Your task to perform on an android device: make emails show in primary in the gmail app Image 0: 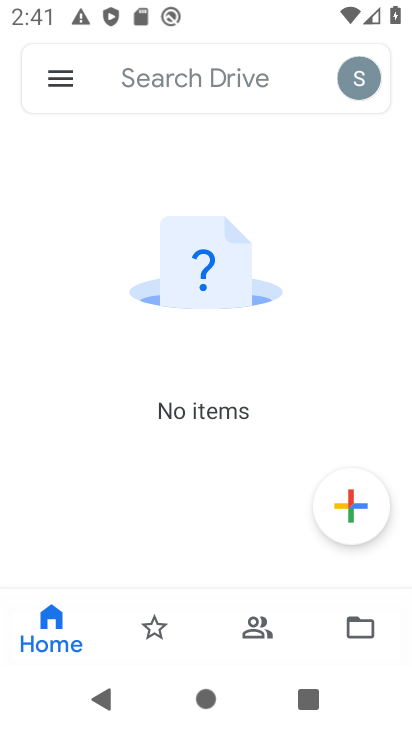
Step 0: press home button
Your task to perform on an android device: make emails show in primary in the gmail app Image 1: 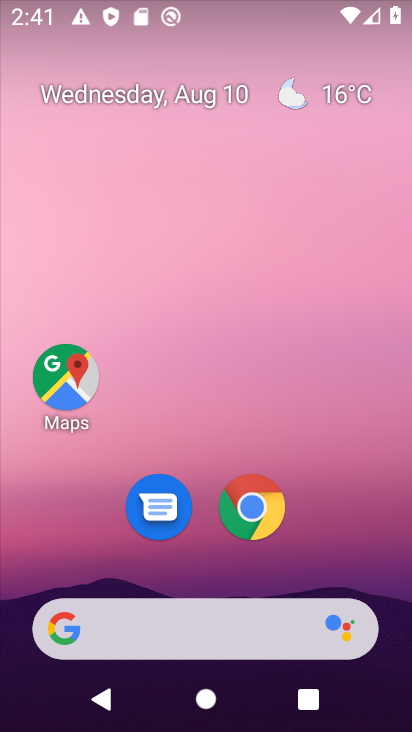
Step 1: drag from (339, 526) to (287, 70)
Your task to perform on an android device: make emails show in primary in the gmail app Image 2: 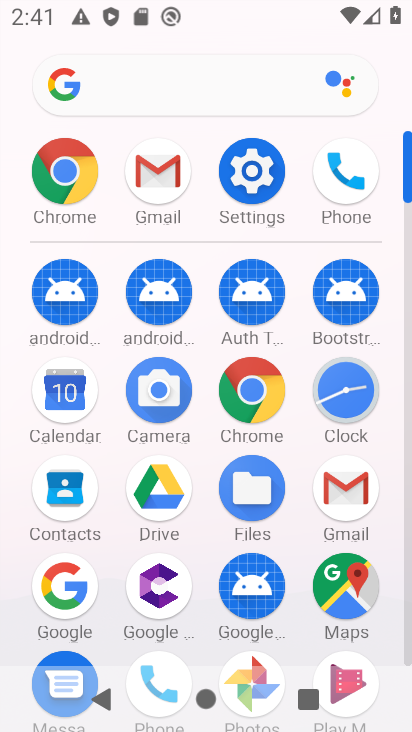
Step 2: click (155, 178)
Your task to perform on an android device: make emails show in primary in the gmail app Image 3: 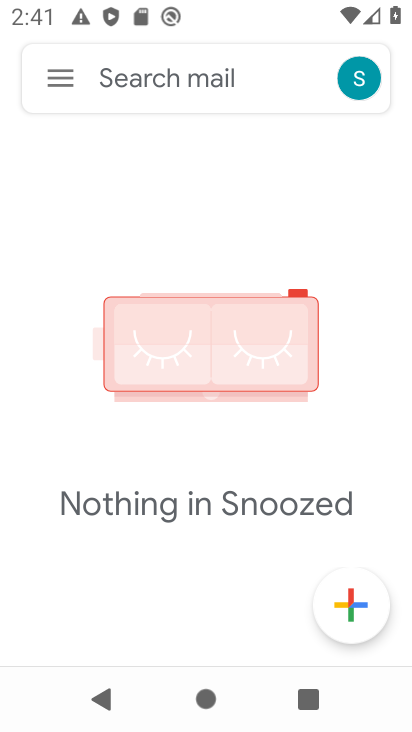
Step 3: click (62, 80)
Your task to perform on an android device: make emails show in primary in the gmail app Image 4: 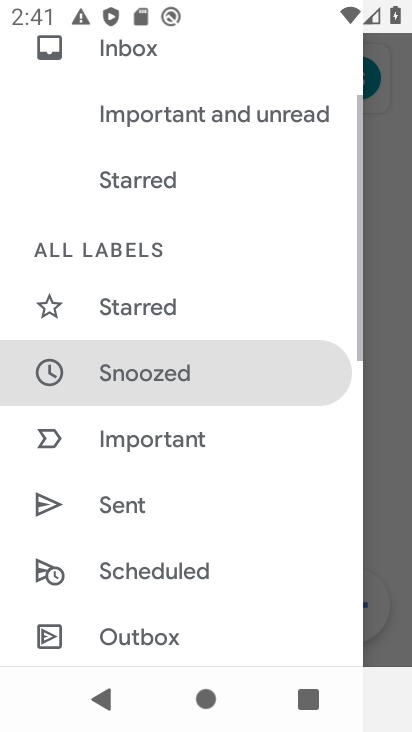
Step 4: drag from (167, 152) to (173, 679)
Your task to perform on an android device: make emails show in primary in the gmail app Image 5: 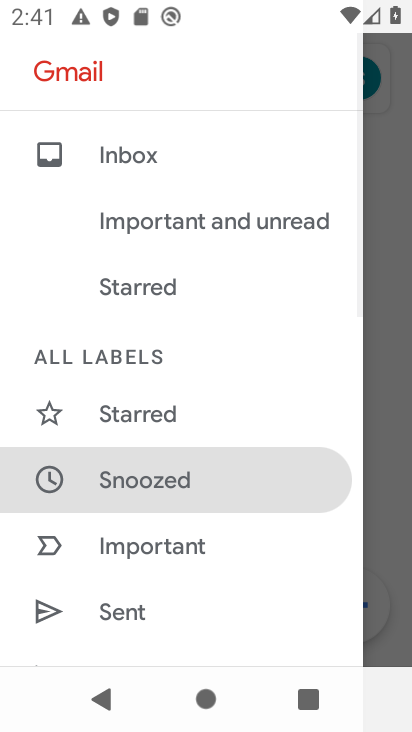
Step 5: drag from (163, 544) to (211, 117)
Your task to perform on an android device: make emails show in primary in the gmail app Image 6: 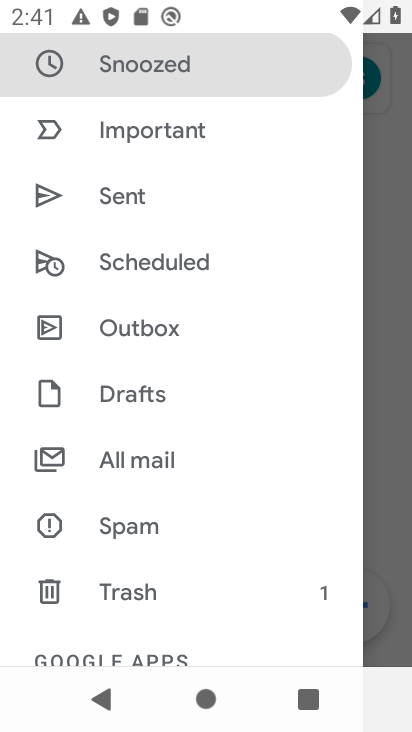
Step 6: drag from (133, 515) to (196, 128)
Your task to perform on an android device: make emails show in primary in the gmail app Image 7: 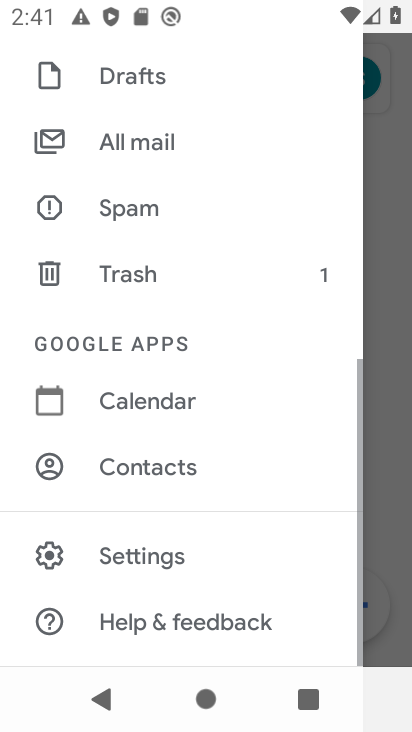
Step 7: click (117, 562)
Your task to perform on an android device: make emails show in primary in the gmail app Image 8: 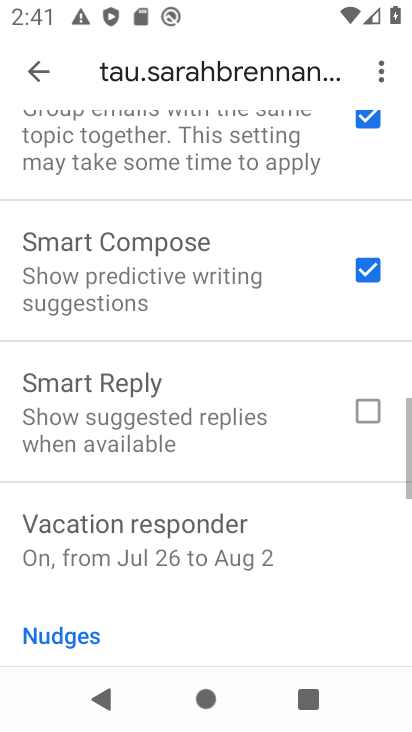
Step 8: drag from (211, 168) to (214, 646)
Your task to perform on an android device: make emails show in primary in the gmail app Image 9: 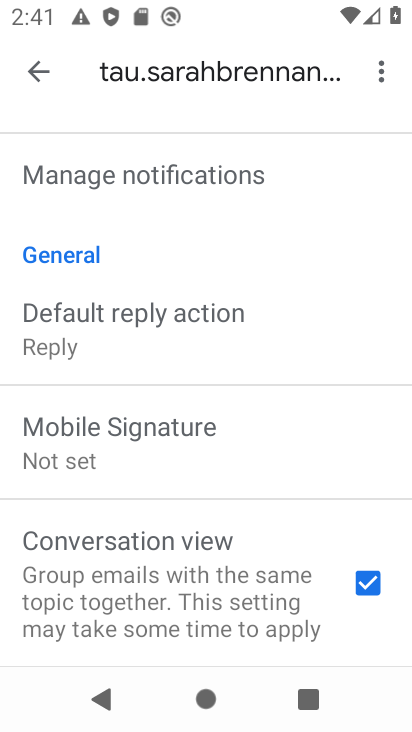
Step 9: drag from (170, 195) to (177, 516)
Your task to perform on an android device: make emails show in primary in the gmail app Image 10: 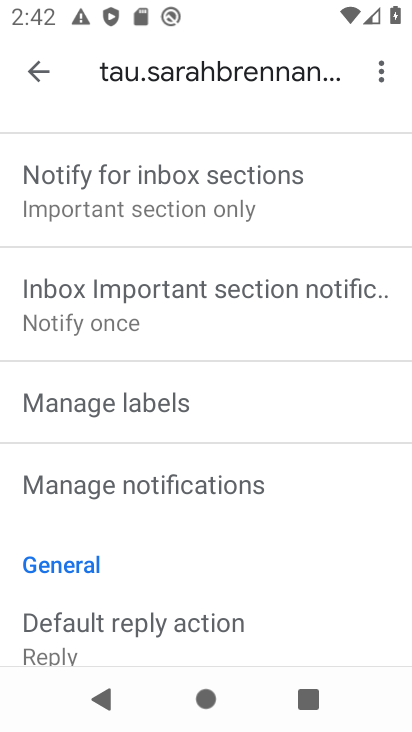
Step 10: drag from (168, 190) to (191, 553)
Your task to perform on an android device: make emails show in primary in the gmail app Image 11: 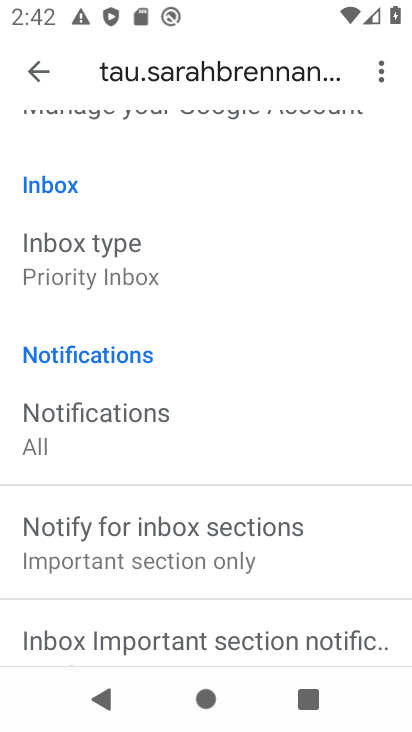
Step 11: click (112, 262)
Your task to perform on an android device: make emails show in primary in the gmail app Image 12: 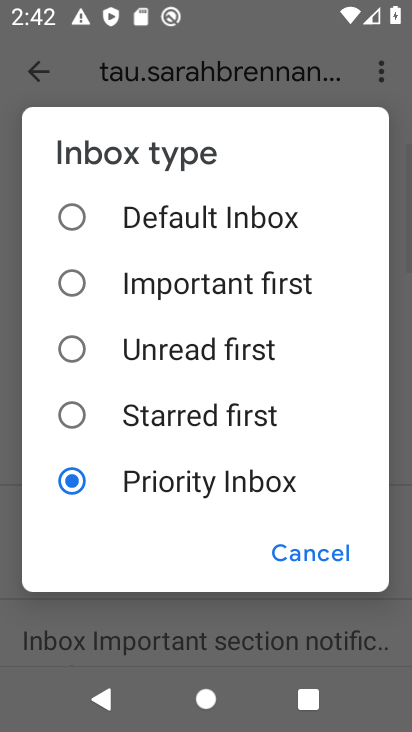
Step 12: click (136, 212)
Your task to perform on an android device: make emails show in primary in the gmail app Image 13: 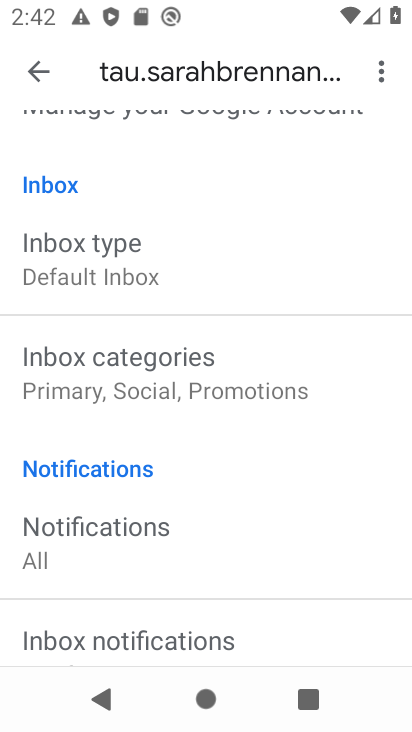
Step 13: task complete